Your task to perform on an android device: Open the map Image 0: 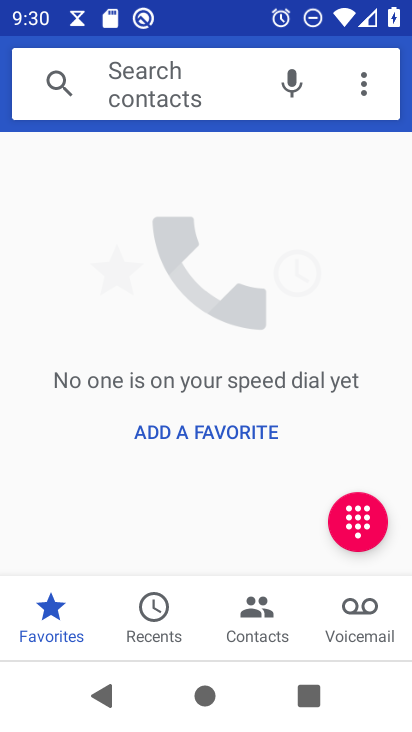
Step 0: press home button
Your task to perform on an android device: Open the map Image 1: 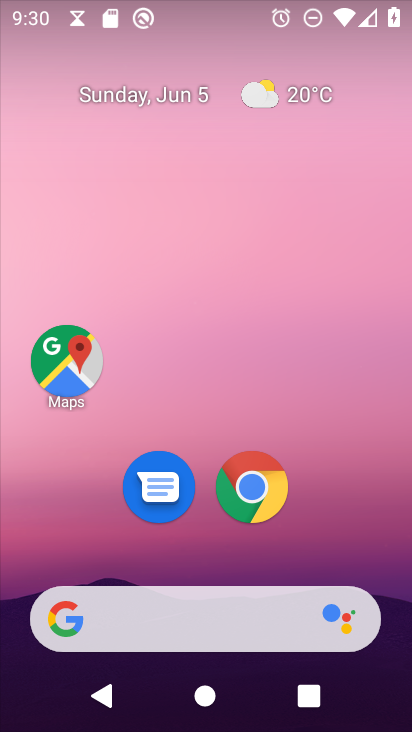
Step 1: click (60, 343)
Your task to perform on an android device: Open the map Image 2: 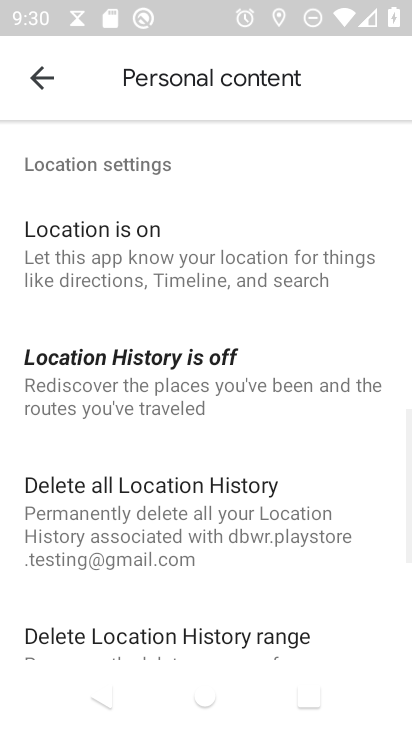
Step 2: click (29, 70)
Your task to perform on an android device: Open the map Image 3: 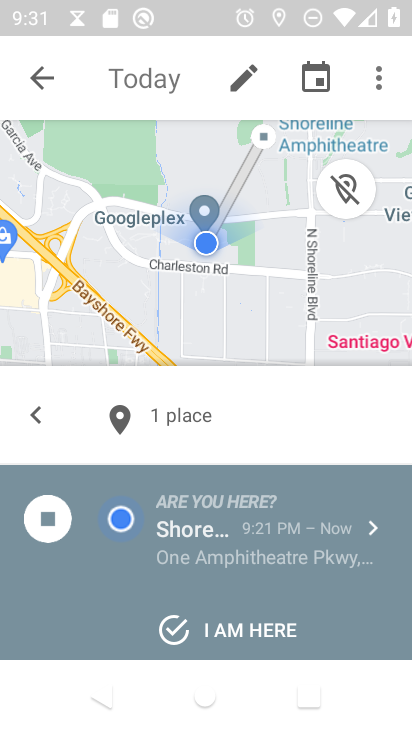
Step 3: task complete